Your task to perform on an android device: show emergency info Image 0: 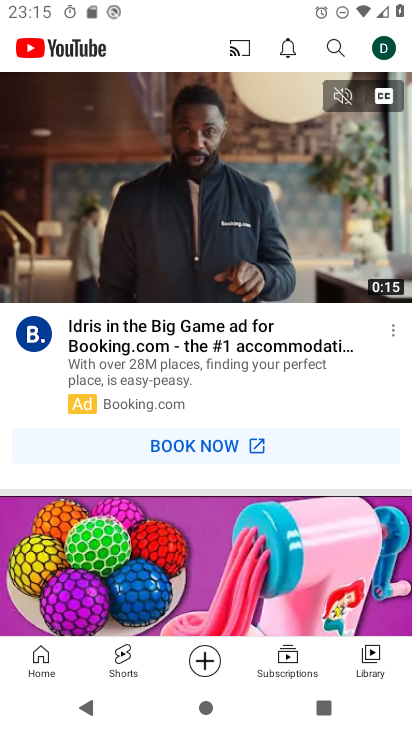
Step 0: press home button
Your task to perform on an android device: show emergency info Image 1: 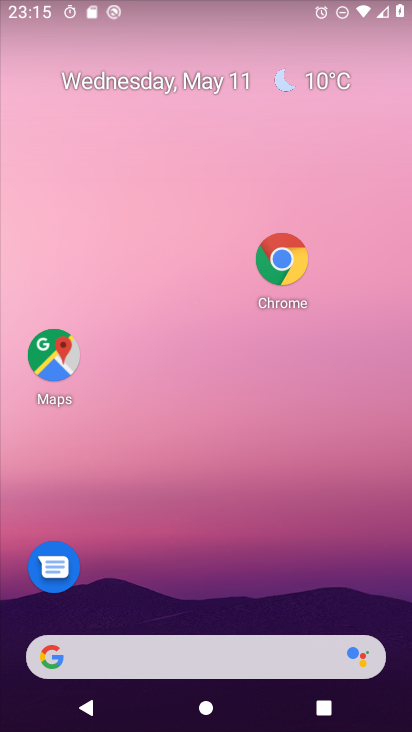
Step 1: drag from (138, 658) to (310, 26)
Your task to perform on an android device: show emergency info Image 2: 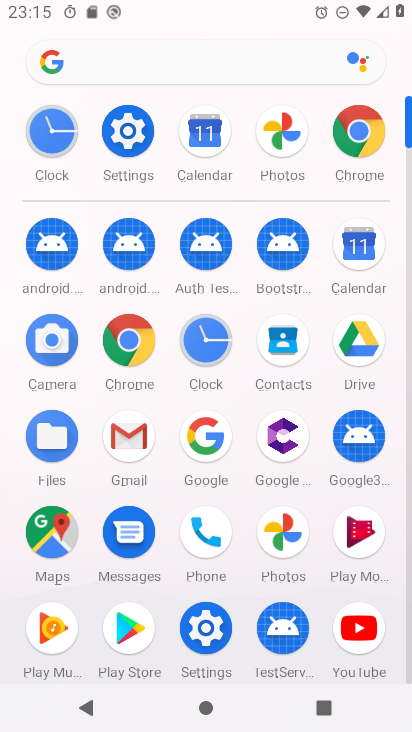
Step 2: click (129, 138)
Your task to perform on an android device: show emergency info Image 3: 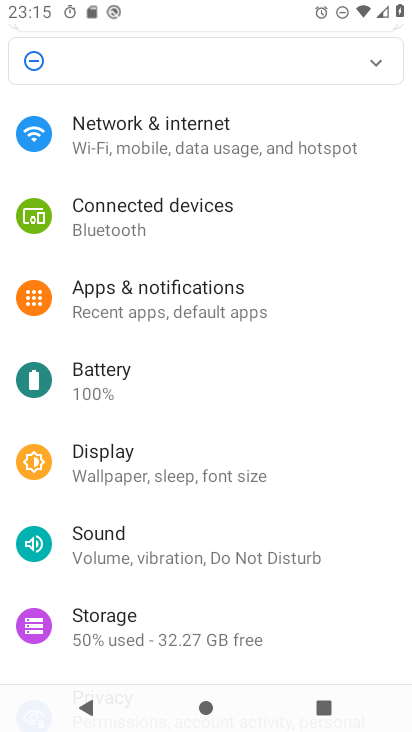
Step 3: drag from (187, 634) to (324, 102)
Your task to perform on an android device: show emergency info Image 4: 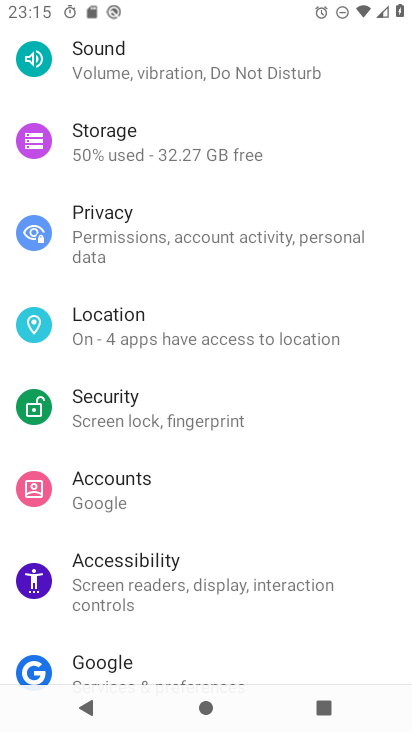
Step 4: drag from (204, 499) to (263, 154)
Your task to perform on an android device: show emergency info Image 5: 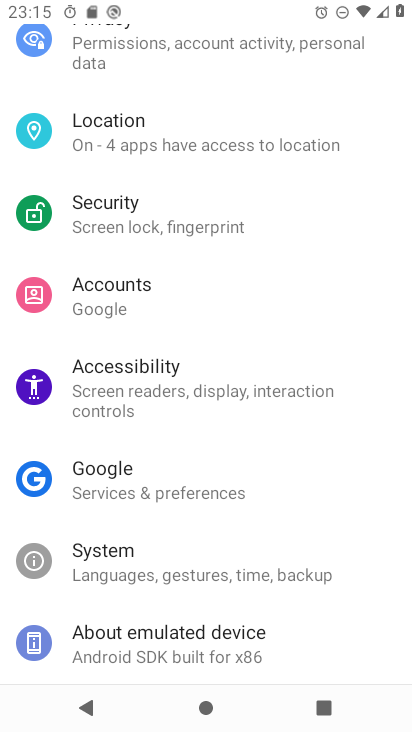
Step 5: click (117, 635)
Your task to perform on an android device: show emergency info Image 6: 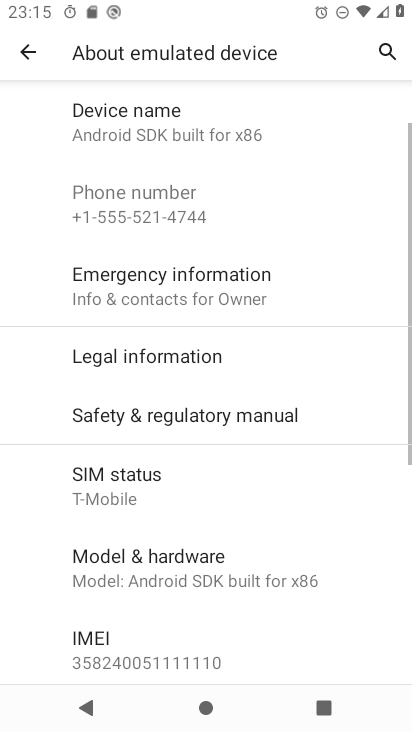
Step 6: drag from (197, 623) to (217, 509)
Your task to perform on an android device: show emergency info Image 7: 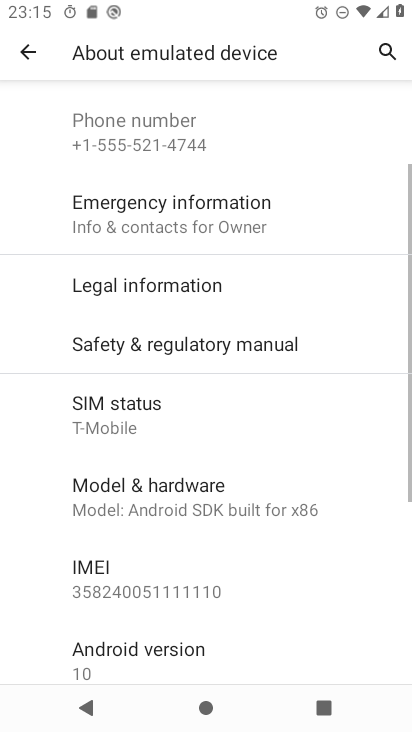
Step 7: click (168, 200)
Your task to perform on an android device: show emergency info Image 8: 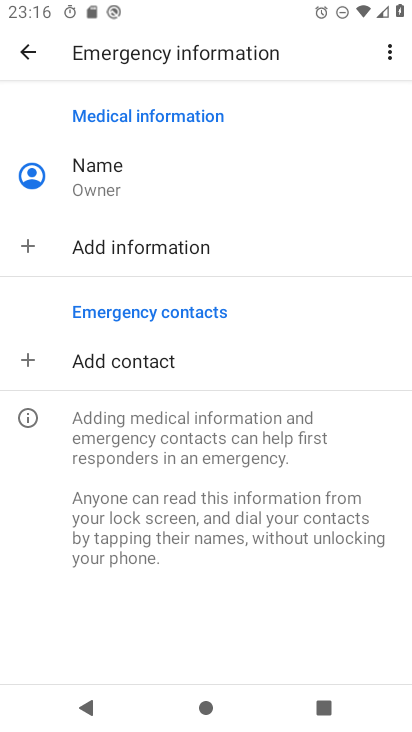
Step 8: task complete